Your task to perform on an android device: install app "Adobe Express: Graphic Design" Image 0: 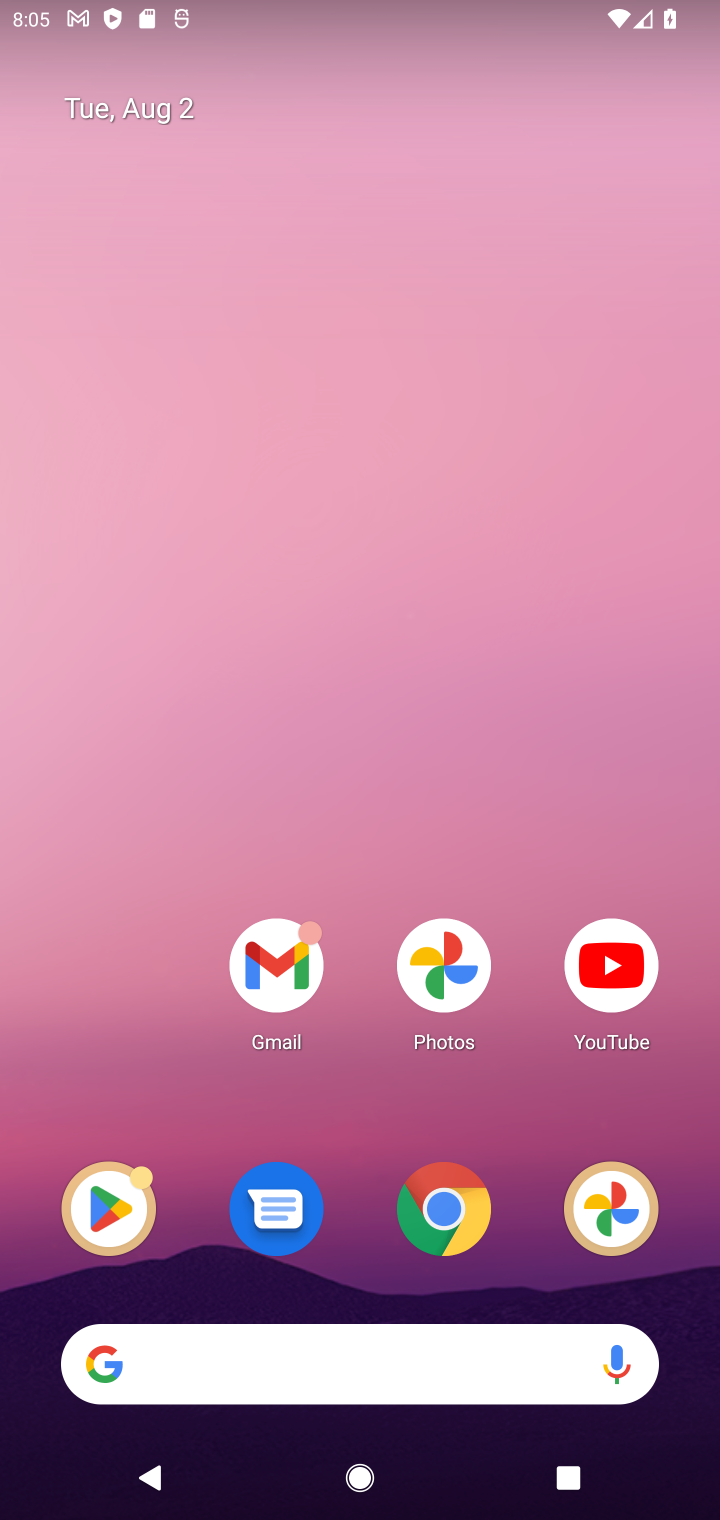
Step 0: click (120, 1197)
Your task to perform on an android device: install app "Adobe Express: Graphic Design" Image 1: 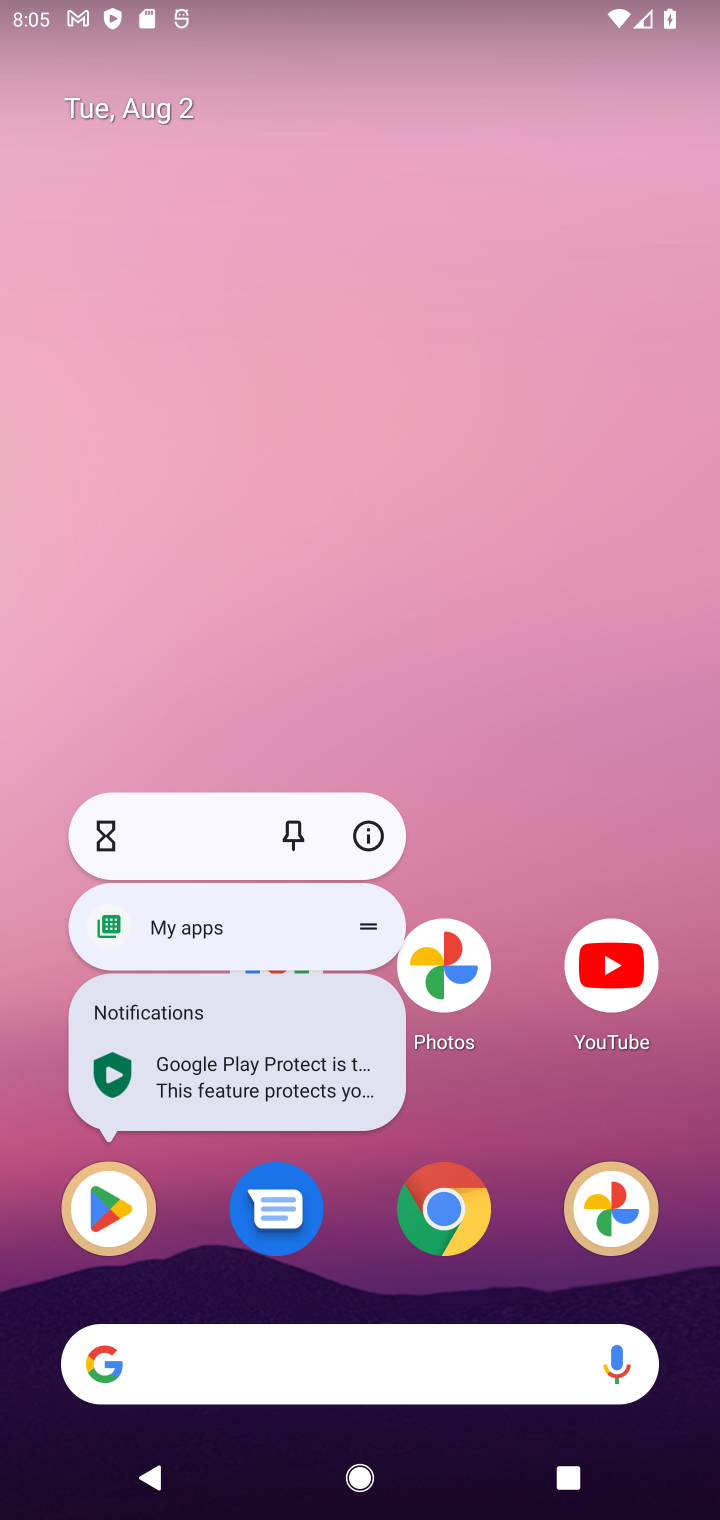
Step 1: click (131, 1202)
Your task to perform on an android device: install app "Adobe Express: Graphic Design" Image 2: 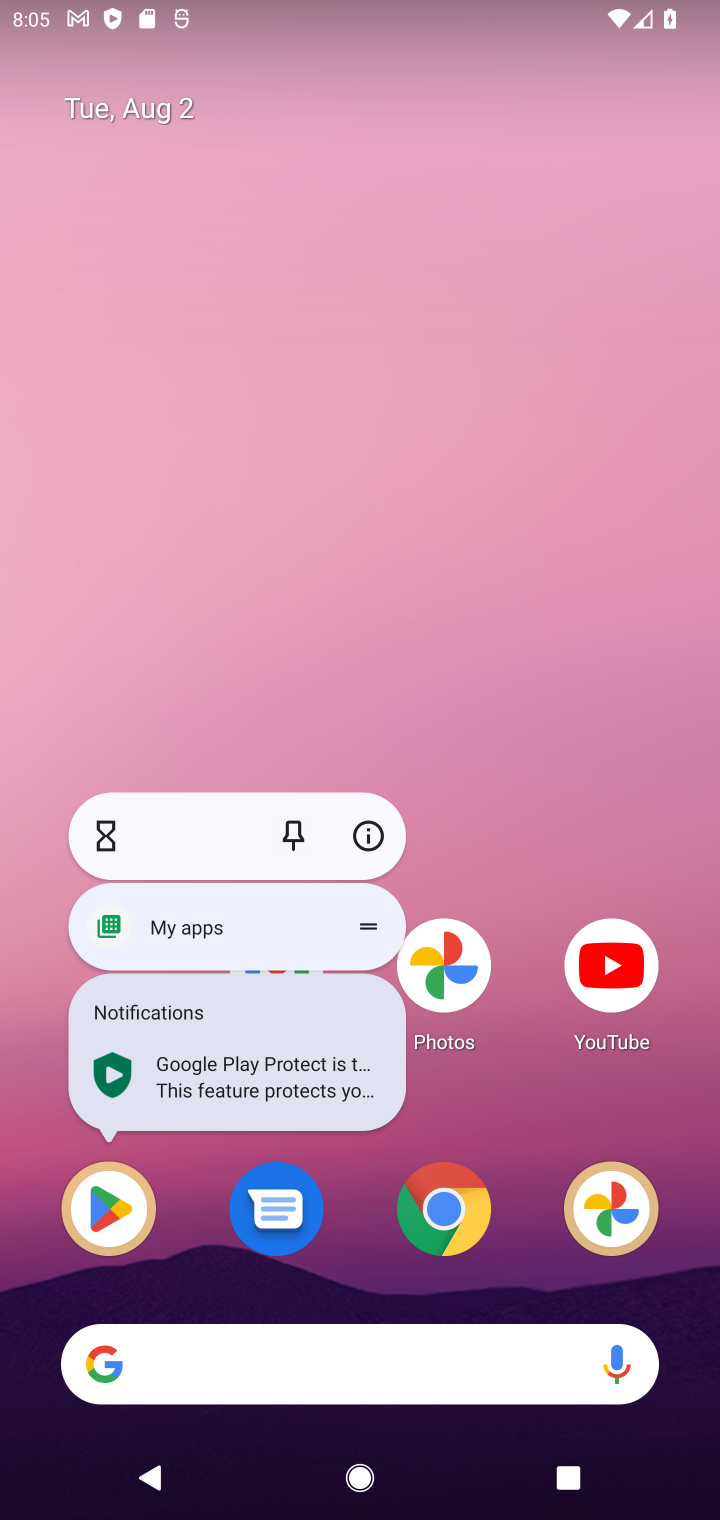
Step 2: click (126, 1202)
Your task to perform on an android device: install app "Adobe Express: Graphic Design" Image 3: 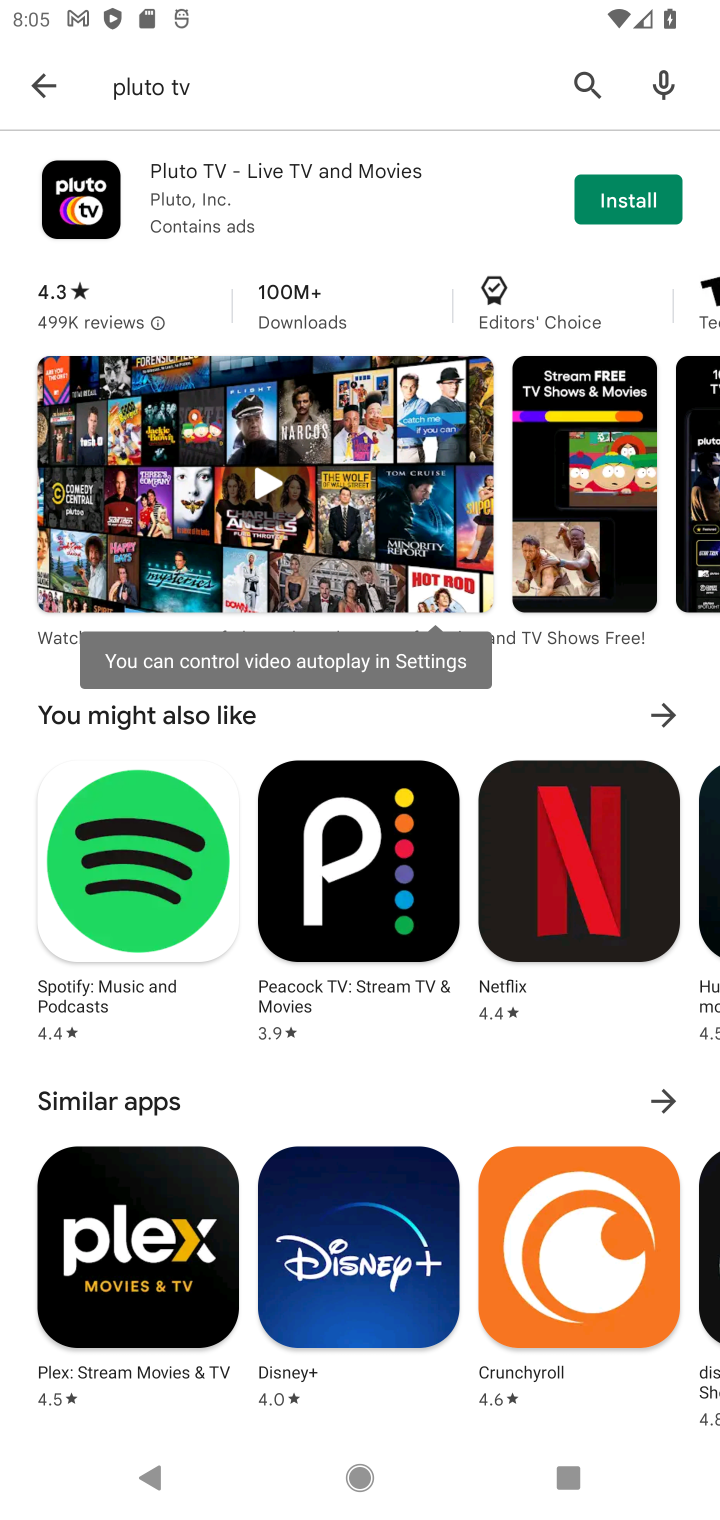
Step 3: click (37, 69)
Your task to perform on an android device: install app "Adobe Express: Graphic Design" Image 4: 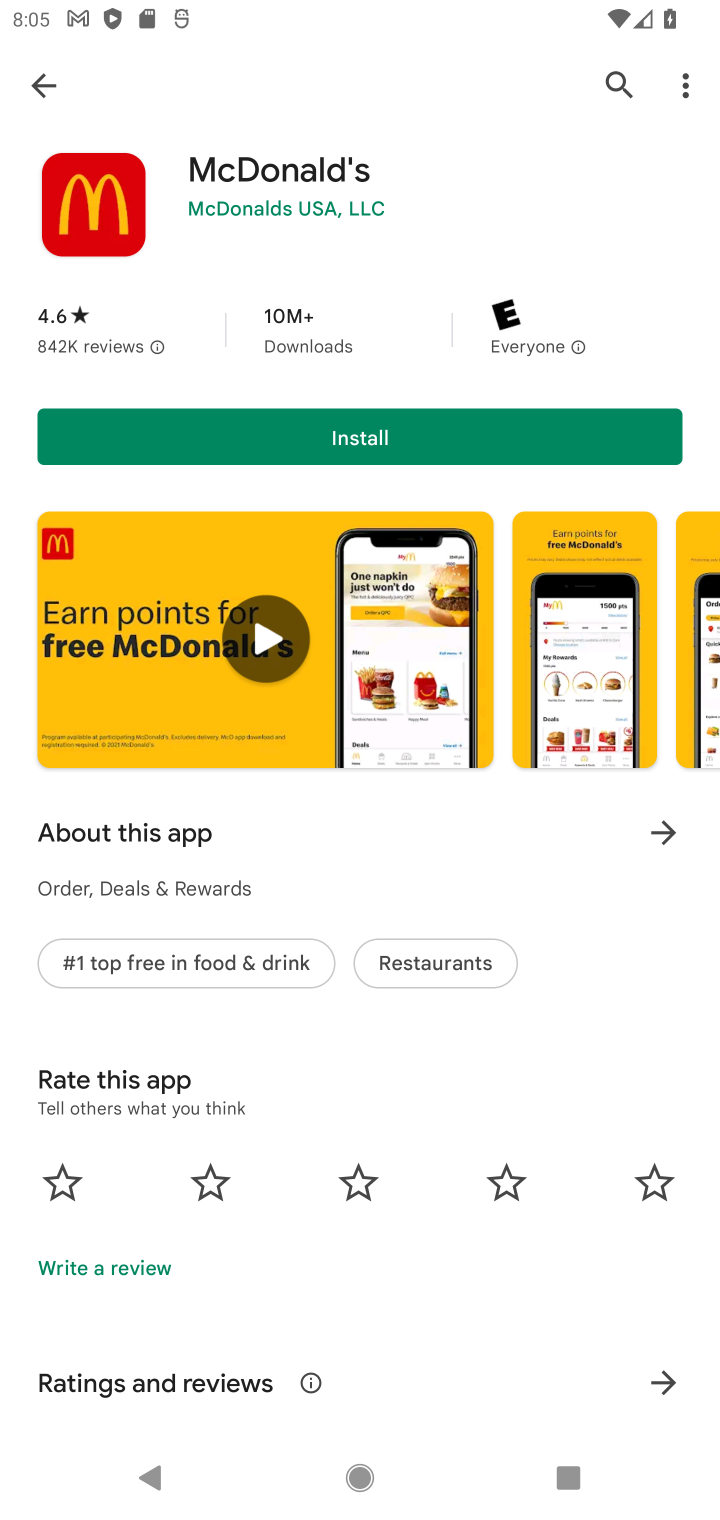
Step 4: click (50, 99)
Your task to perform on an android device: install app "Adobe Express: Graphic Design" Image 5: 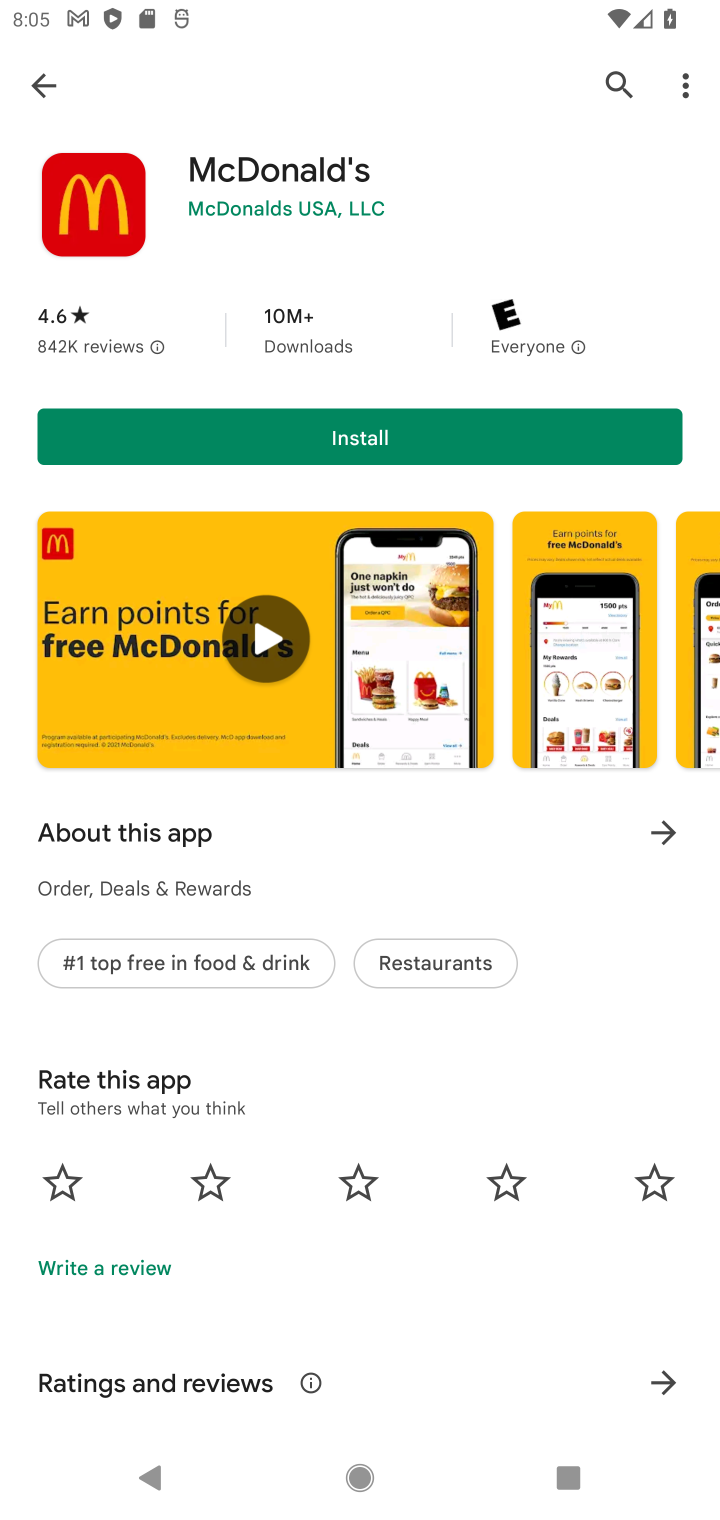
Step 5: click (607, 61)
Your task to perform on an android device: install app "Adobe Express: Graphic Design" Image 6: 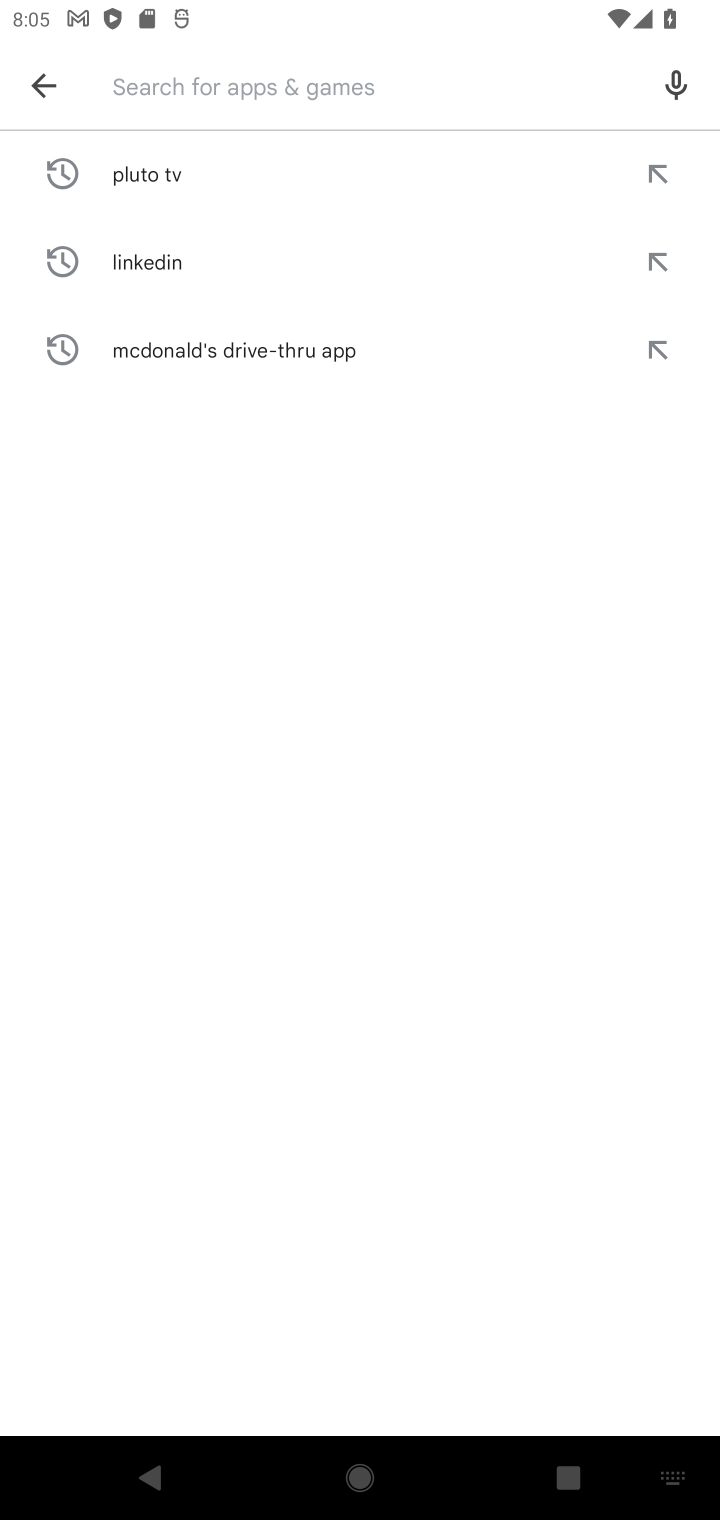
Step 6: type "Adobe Express"
Your task to perform on an android device: install app "Adobe Express: Graphic Design" Image 7: 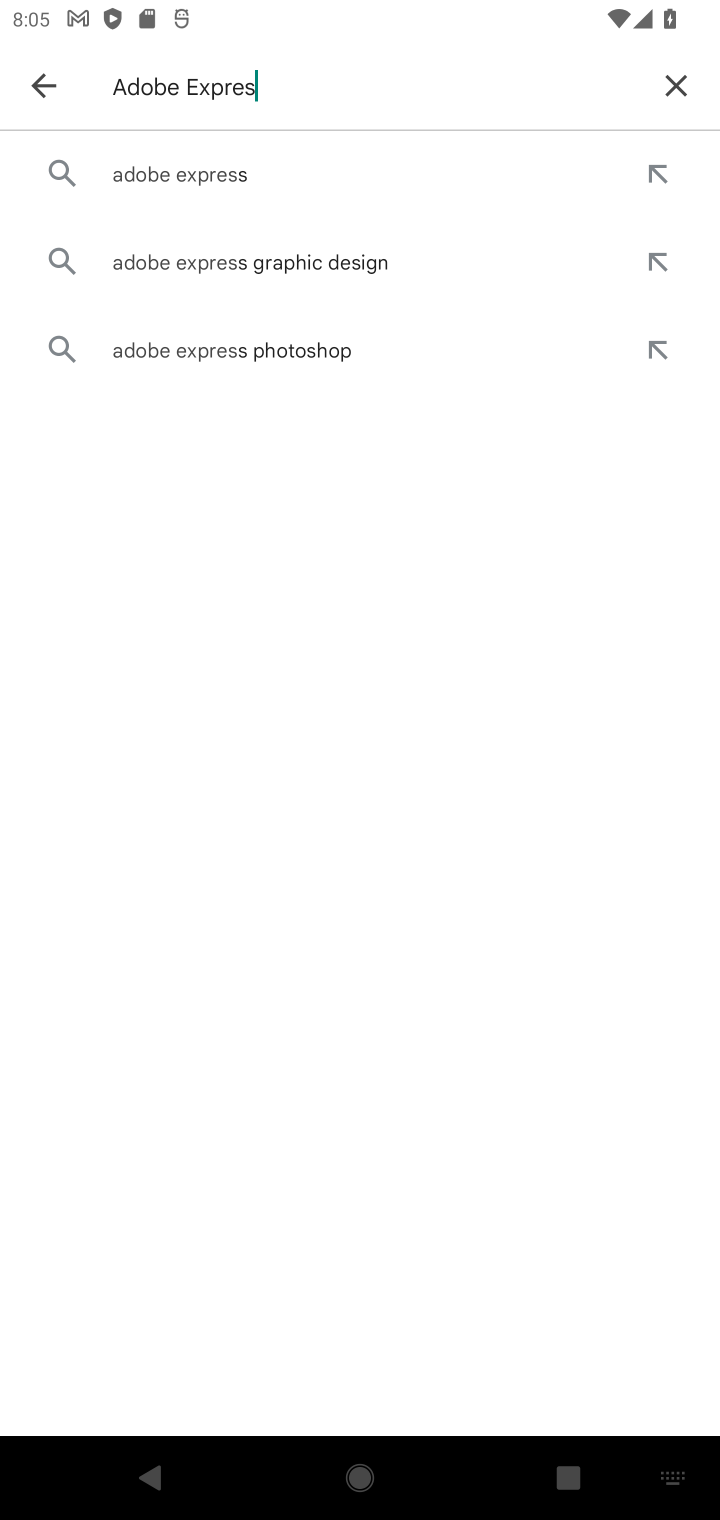
Step 7: type ""
Your task to perform on an android device: install app "Adobe Express: Graphic Design" Image 8: 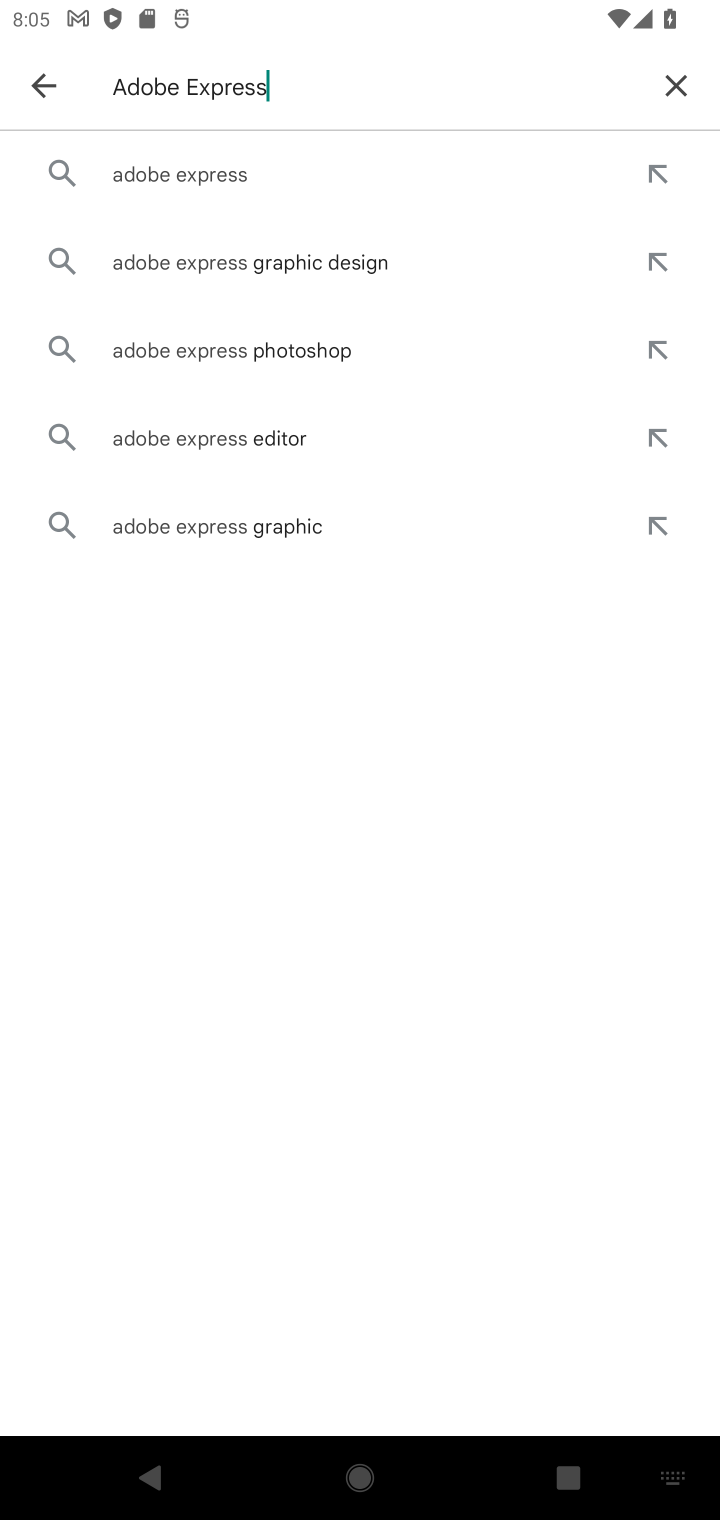
Step 8: click (255, 177)
Your task to perform on an android device: install app "Adobe Express: Graphic Design" Image 9: 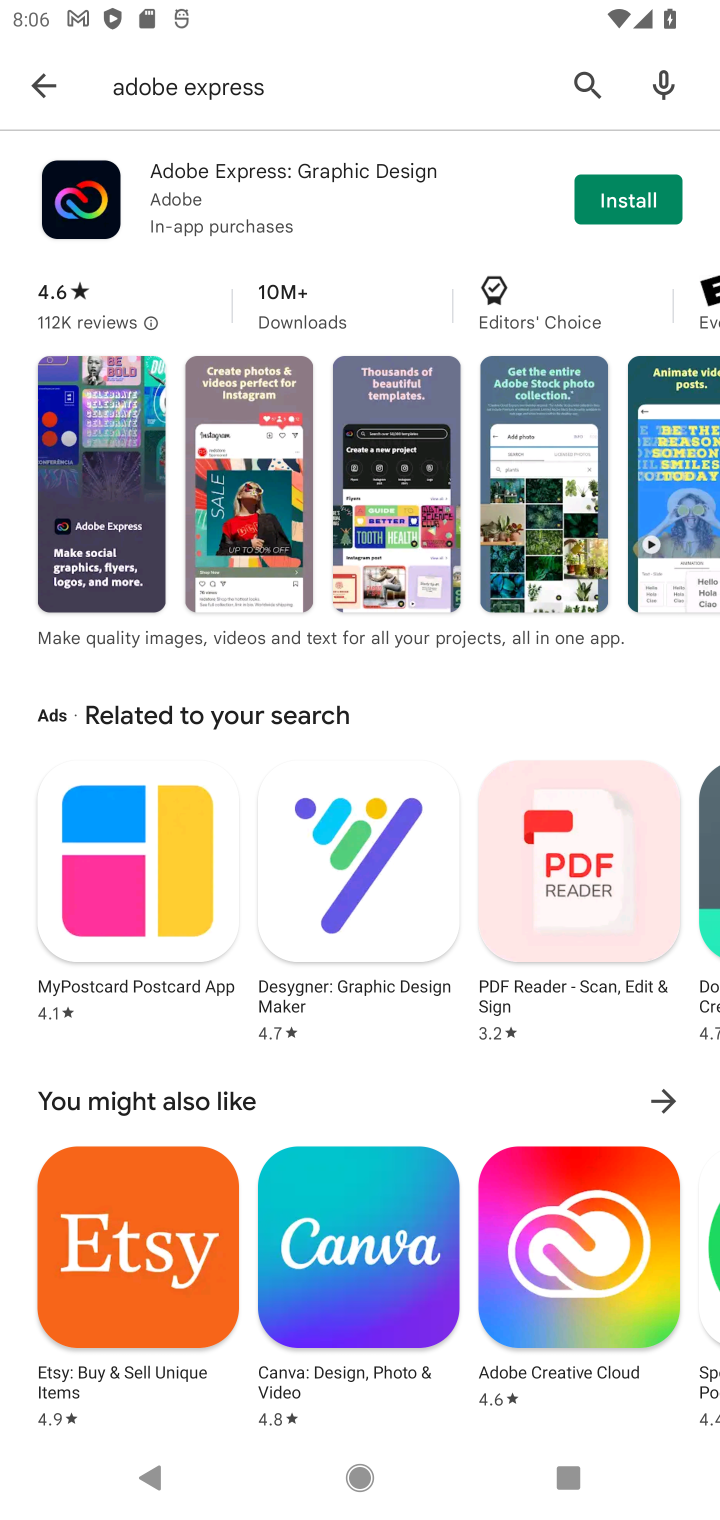
Step 9: click (611, 197)
Your task to perform on an android device: install app "Adobe Express: Graphic Design" Image 10: 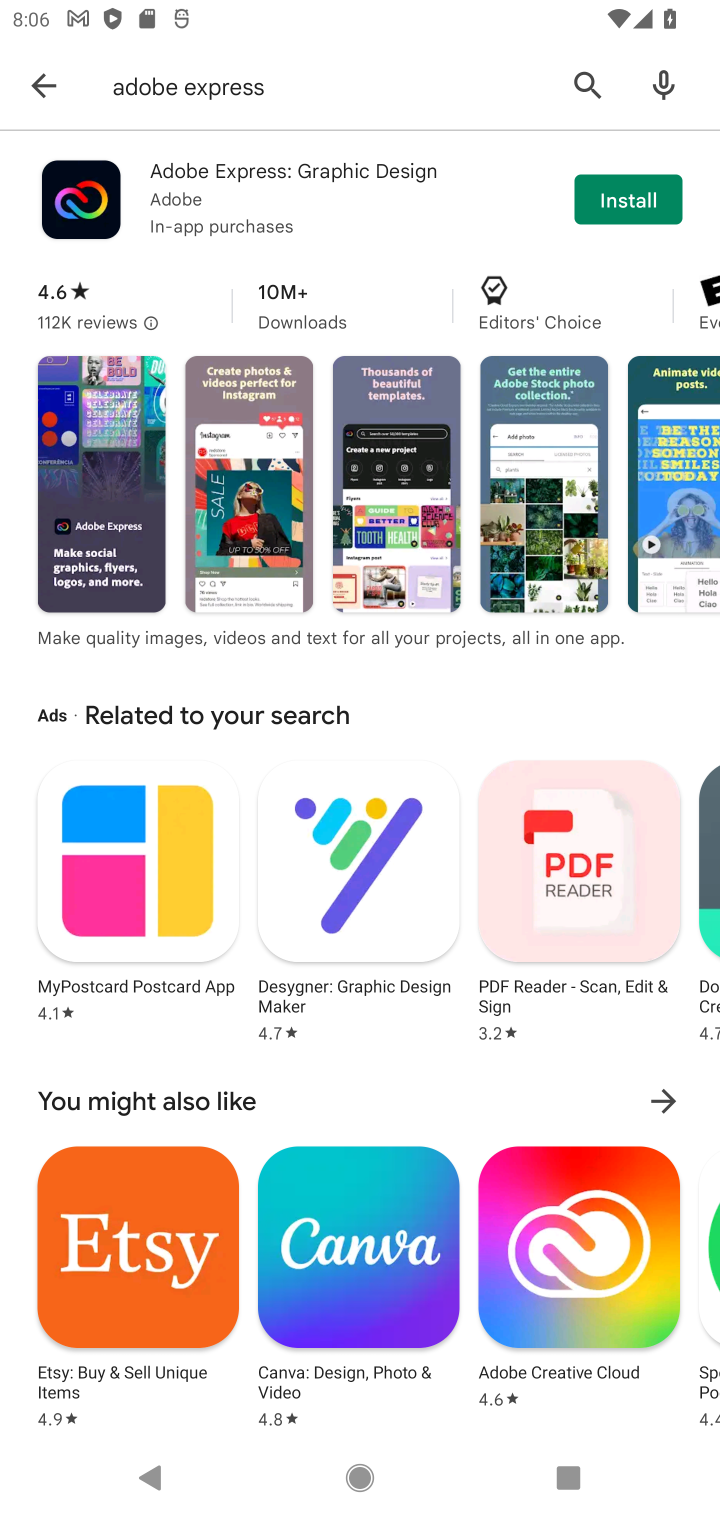
Step 10: task complete